Your task to perform on an android device: find which apps use the phone's location Image 0: 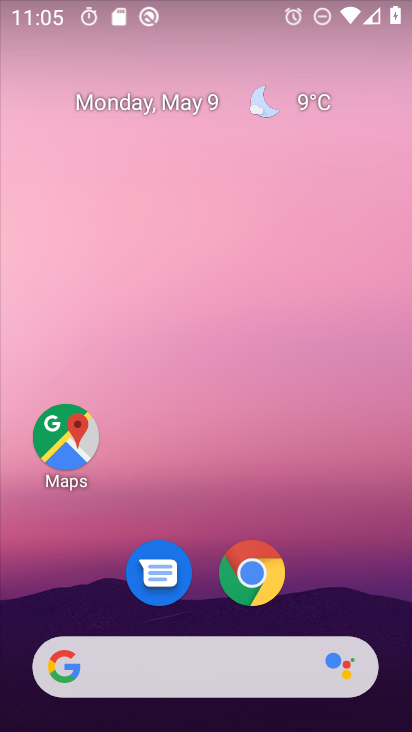
Step 0: drag from (347, 574) to (265, 145)
Your task to perform on an android device: find which apps use the phone's location Image 1: 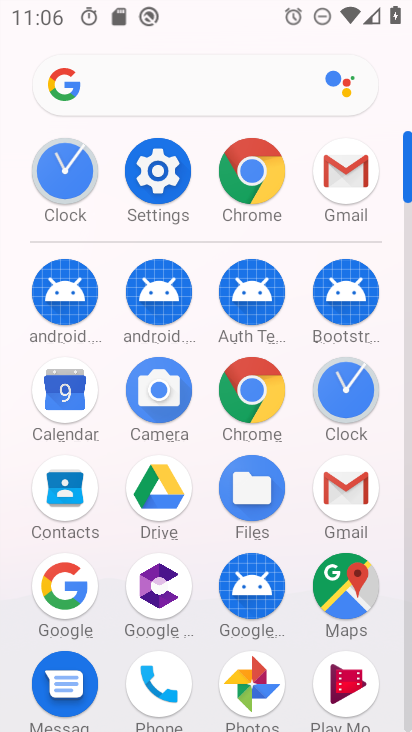
Step 1: click (170, 164)
Your task to perform on an android device: find which apps use the phone's location Image 2: 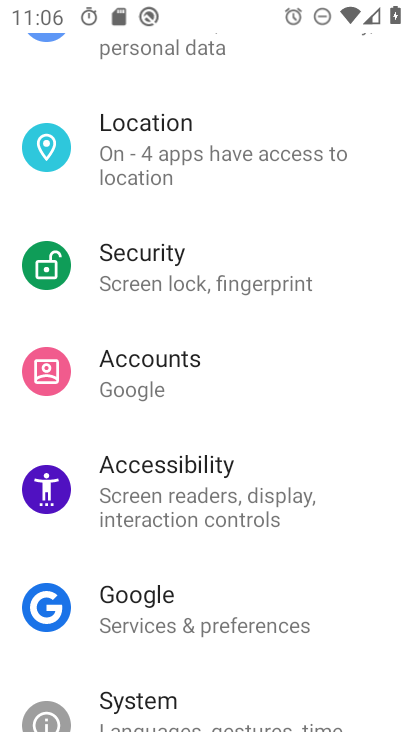
Step 2: drag from (223, 678) to (321, 731)
Your task to perform on an android device: find which apps use the phone's location Image 3: 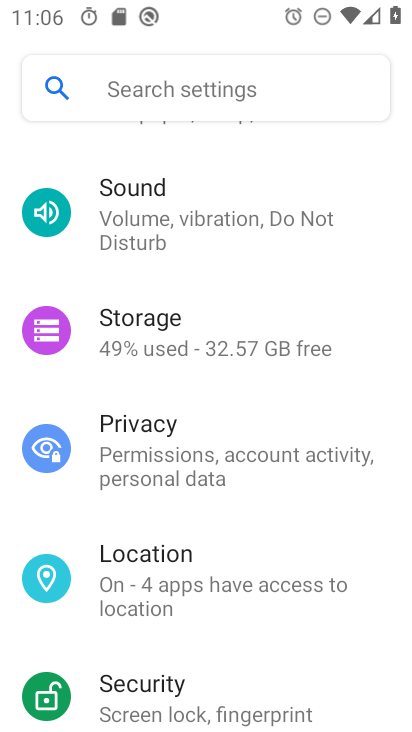
Step 3: click (195, 557)
Your task to perform on an android device: find which apps use the phone's location Image 4: 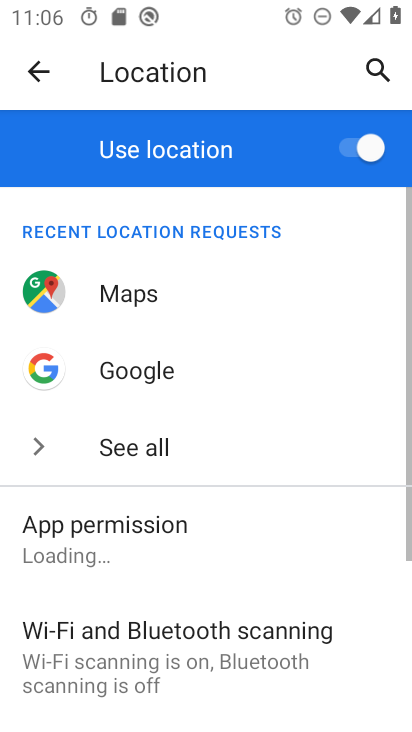
Step 4: drag from (199, 544) to (246, 159)
Your task to perform on an android device: find which apps use the phone's location Image 5: 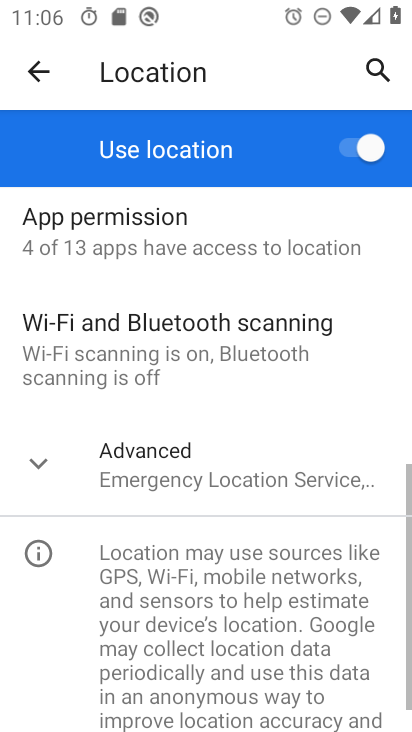
Step 5: click (138, 243)
Your task to perform on an android device: find which apps use the phone's location Image 6: 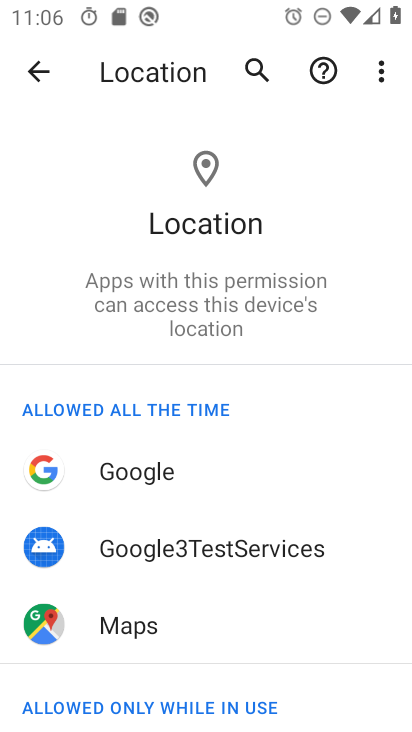
Step 6: task complete